Your task to perform on an android device: Open calendar and show me the second week of next month Image 0: 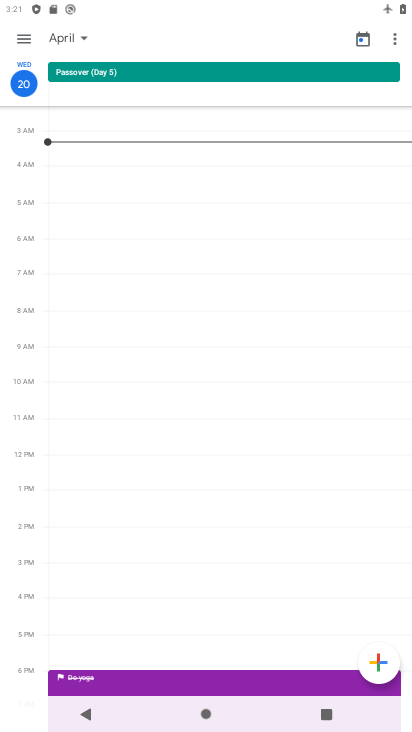
Step 0: click (65, 35)
Your task to perform on an android device: Open calendar and show me the second week of next month Image 1: 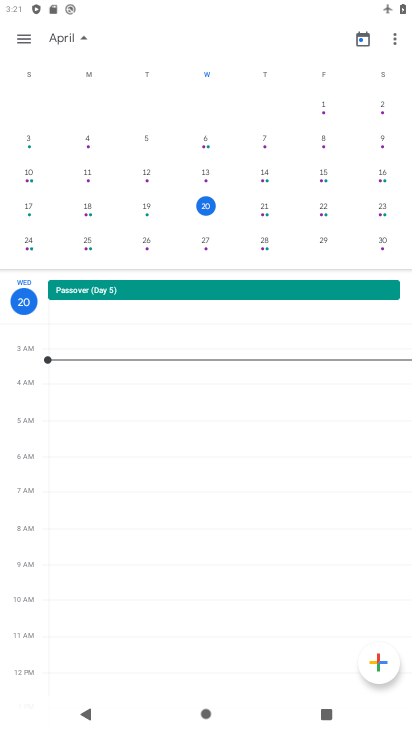
Step 1: drag from (386, 206) to (27, 205)
Your task to perform on an android device: Open calendar and show me the second week of next month Image 2: 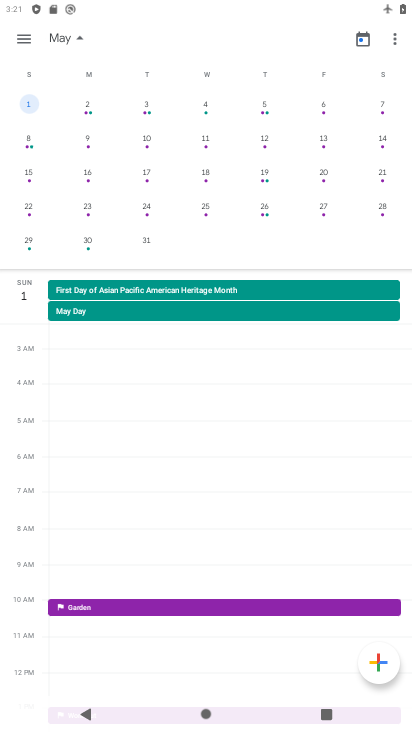
Step 2: click (87, 146)
Your task to perform on an android device: Open calendar and show me the second week of next month Image 3: 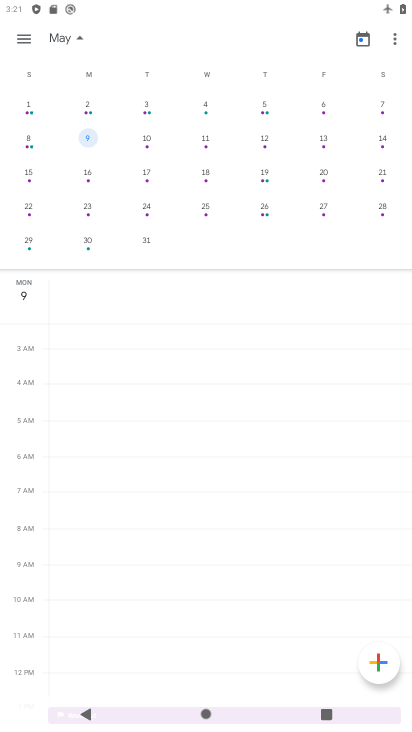
Step 3: task complete